Your task to perform on an android device: Toggle the flashlight Image 0: 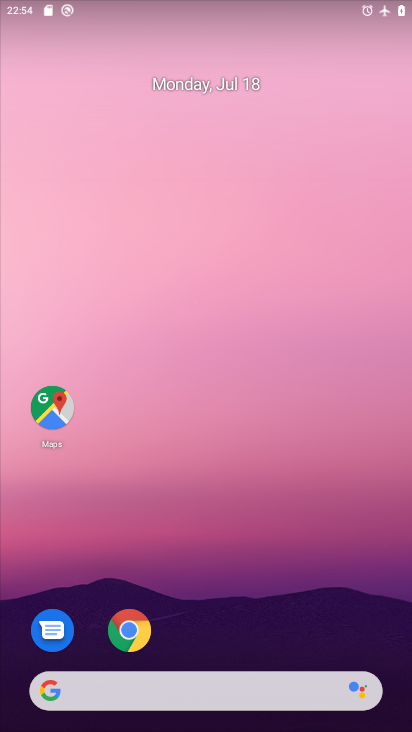
Step 0: drag from (223, 620) to (219, 290)
Your task to perform on an android device: Toggle the flashlight Image 1: 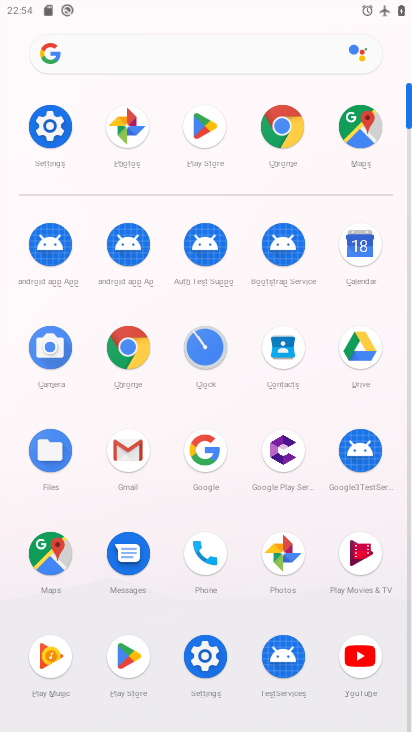
Step 1: click (50, 115)
Your task to perform on an android device: Toggle the flashlight Image 2: 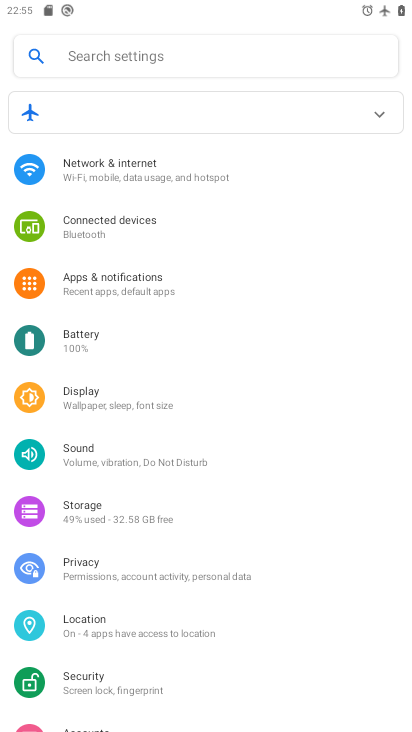
Step 2: task complete